Your task to perform on an android device: change text size in settings app Image 0: 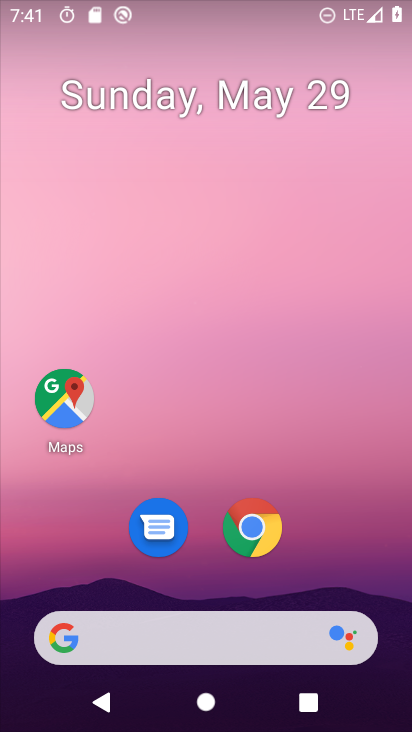
Step 0: drag from (379, 639) to (295, 104)
Your task to perform on an android device: change text size in settings app Image 1: 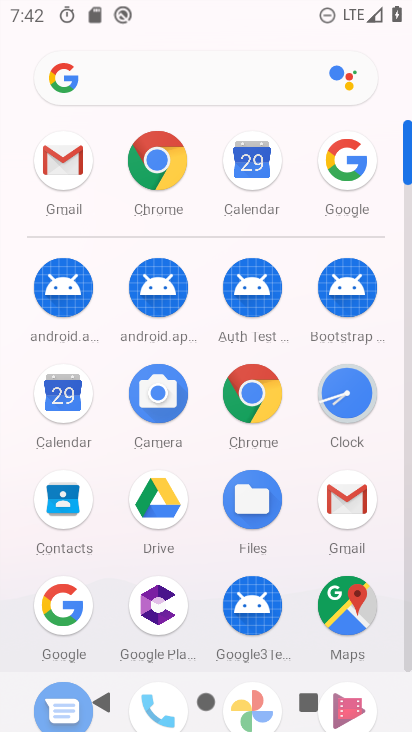
Step 1: drag from (210, 609) to (205, 110)
Your task to perform on an android device: change text size in settings app Image 2: 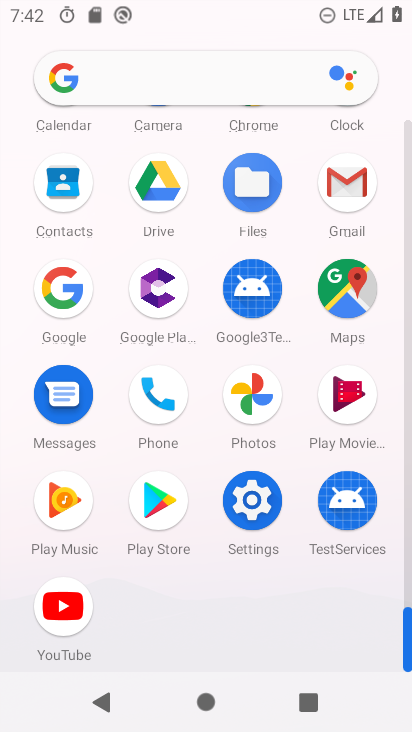
Step 2: click (246, 530)
Your task to perform on an android device: change text size in settings app Image 3: 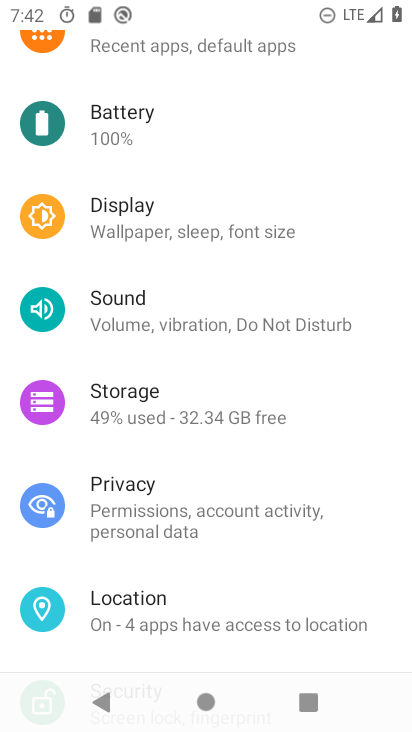
Step 3: click (172, 231)
Your task to perform on an android device: change text size in settings app Image 4: 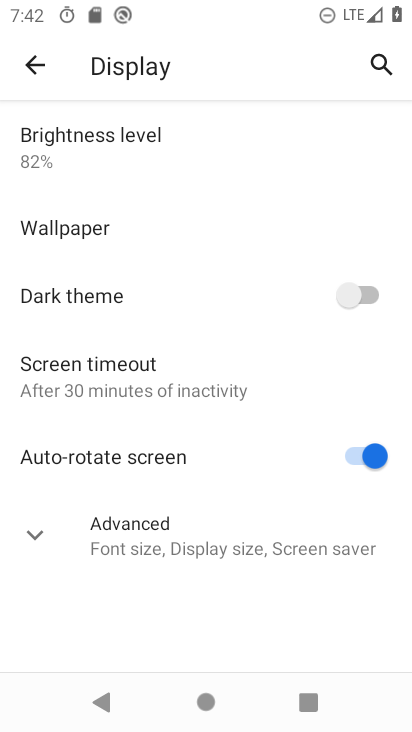
Step 4: click (32, 541)
Your task to perform on an android device: change text size in settings app Image 5: 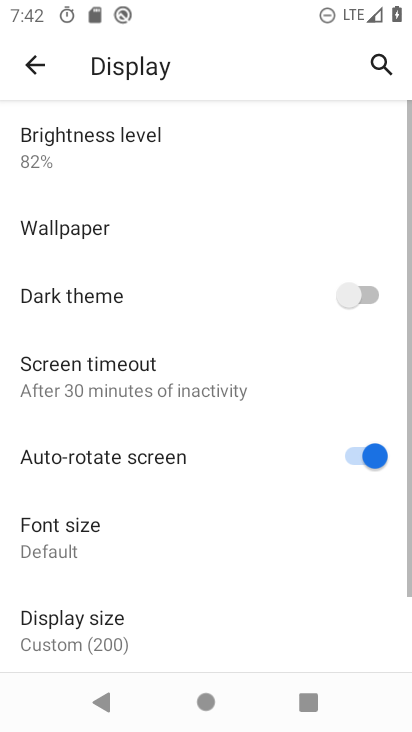
Step 5: click (125, 553)
Your task to perform on an android device: change text size in settings app Image 6: 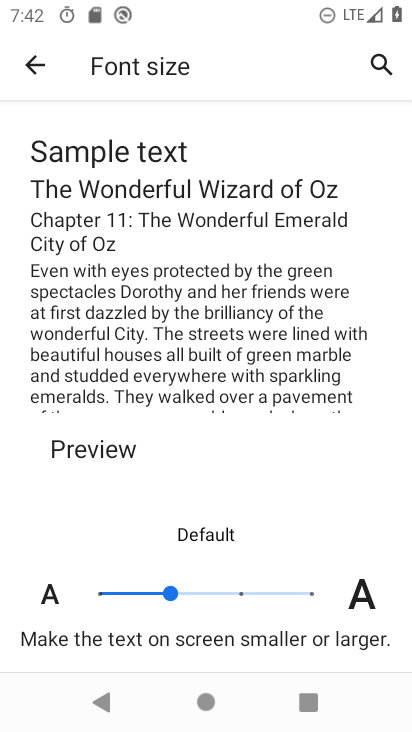
Step 6: click (242, 593)
Your task to perform on an android device: change text size in settings app Image 7: 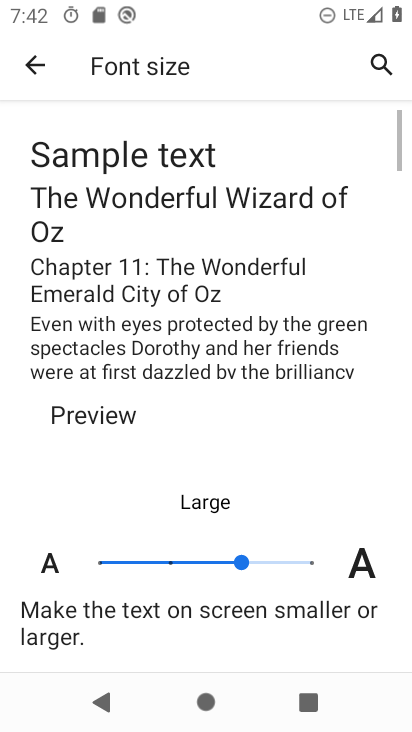
Step 7: task complete